Your task to perform on an android device: What's the weather today? Image 0: 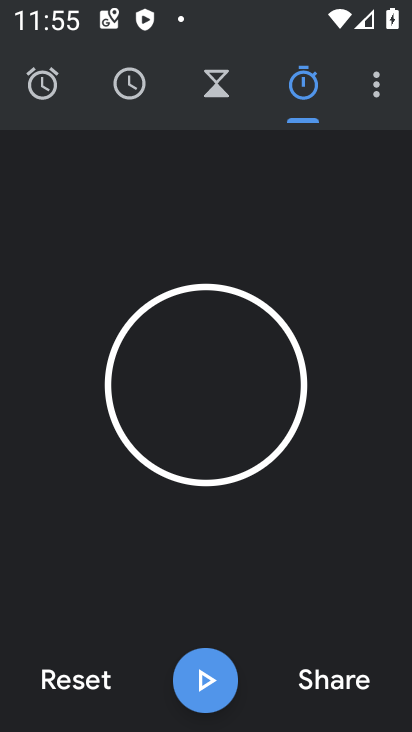
Step 0: press home button
Your task to perform on an android device: What's the weather today? Image 1: 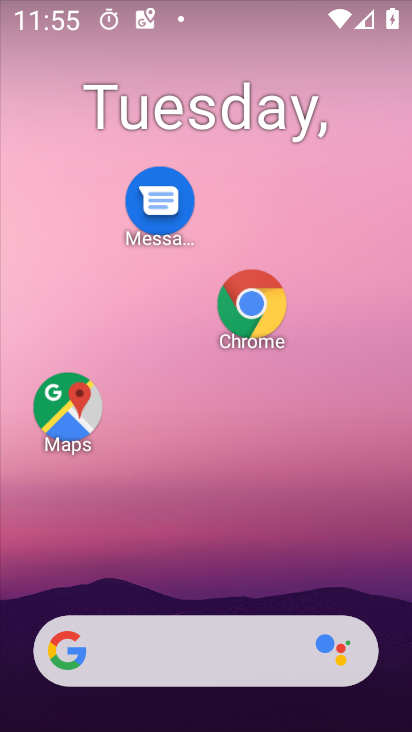
Step 1: drag from (279, 576) to (356, 209)
Your task to perform on an android device: What's the weather today? Image 2: 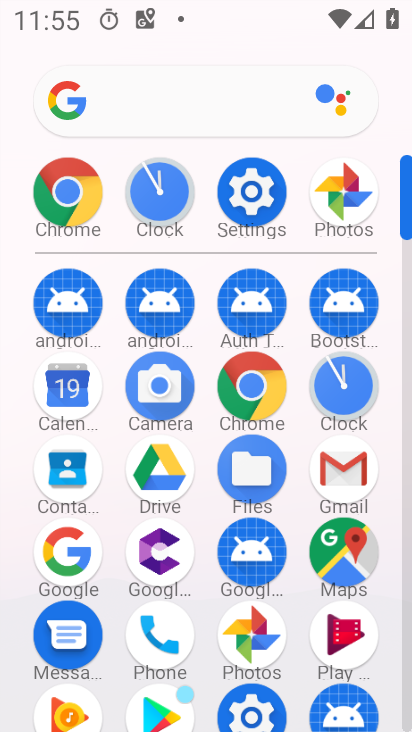
Step 2: click (51, 194)
Your task to perform on an android device: What's the weather today? Image 3: 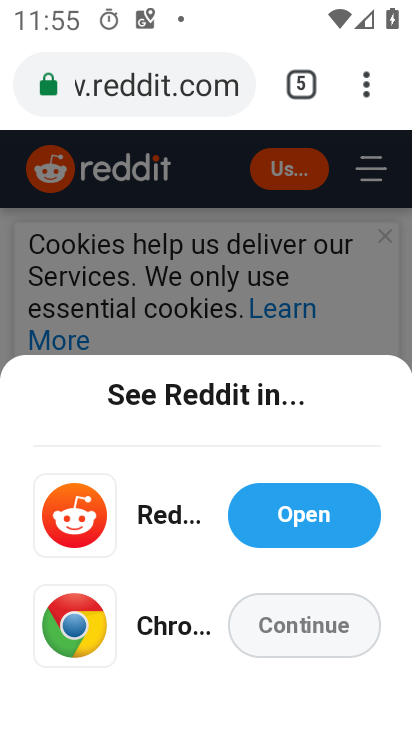
Step 3: click (365, 80)
Your task to perform on an android device: What's the weather today? Image 4: 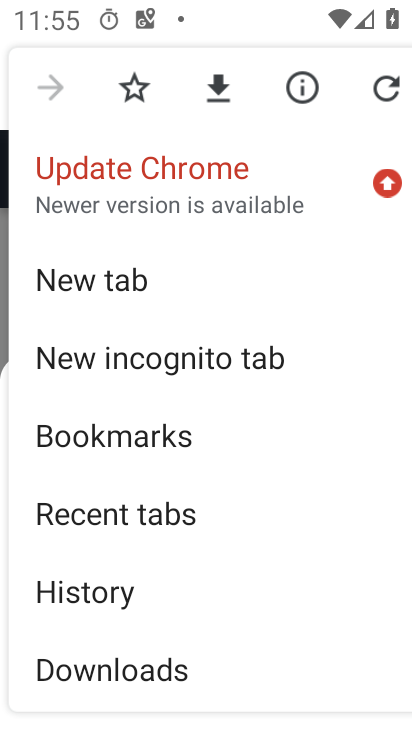
Step 4: click (102, 268)
Your task to perform on an android device: What's the weather today? Image 5: 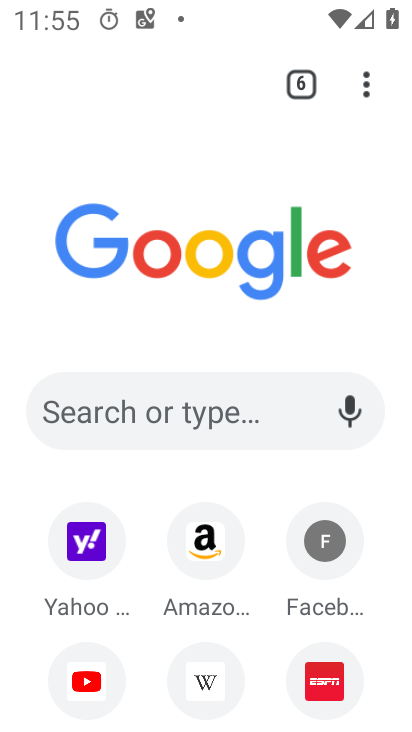
Step 5: click (249, 415)
Your task to perform on an android device: What's the weather today? Image 6: 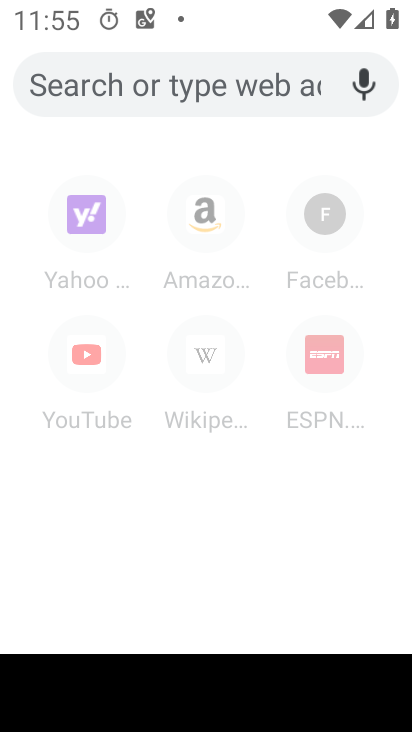
Step 6: type "What's the weather today?"
Your task to perform on an android device: What's the weather today? Image 7: 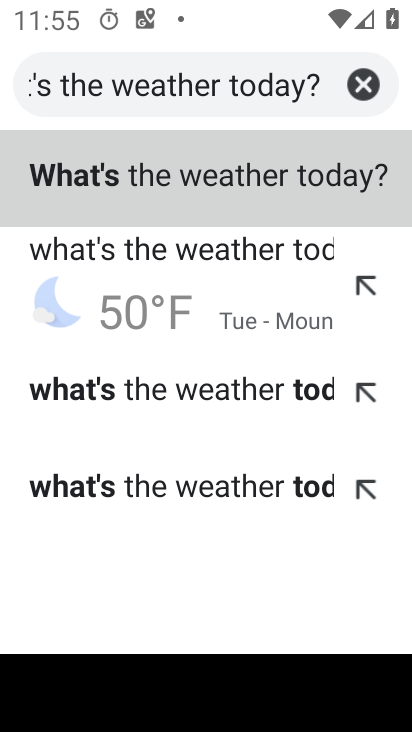
Step 7: click (143, 190)
Your task to perform on an android device: What's the weather today? Image 8: 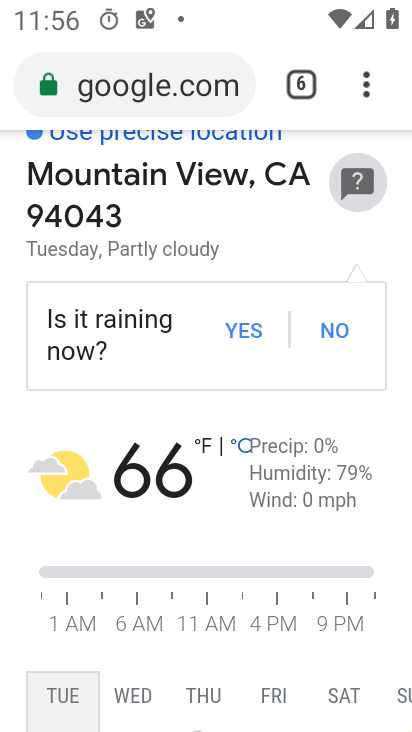
Step 8: task complete